Your task to perform on an android device: turn on improve location accuracy Image 0: 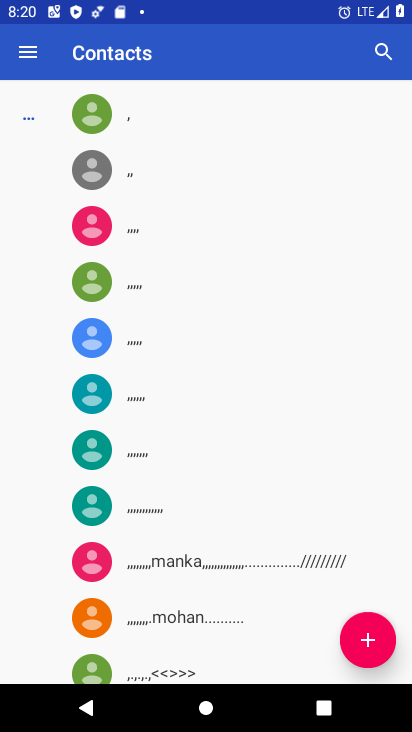
Step 0: press home button
Your task to perform on an android device: turn on improve location accuracy Image 1: 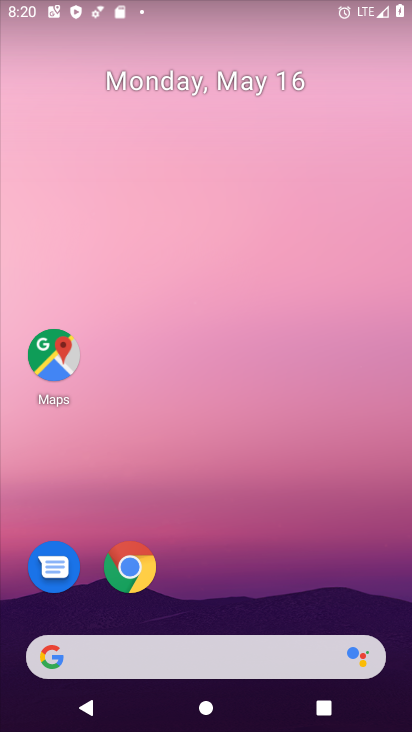
Step 1: drag from (215, 632) to (215, 286)
Your task to perform on an android device: turn on improve location accuracy Image 2: 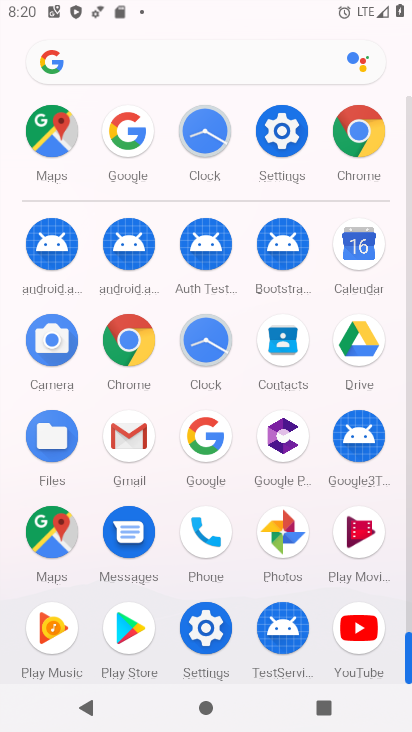
Step 2: click (290, 141)
Your task to perform on an android device: turn on improve location accuracy Image 3: 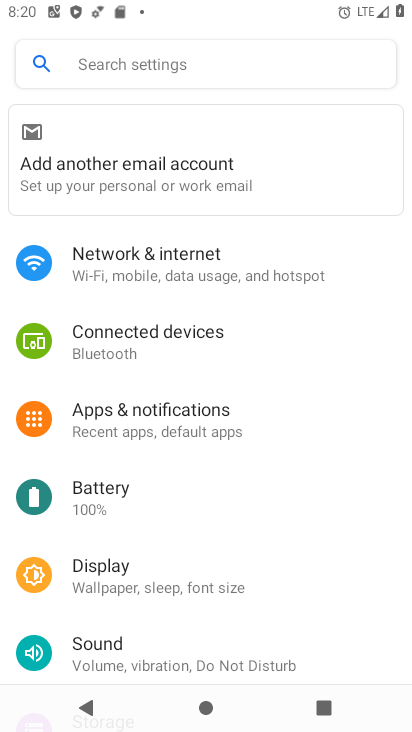
Step 3: drag from (129, 607) to (129, 257)
Your task to perform on an android device: turn on improve location accuracy Image 4: 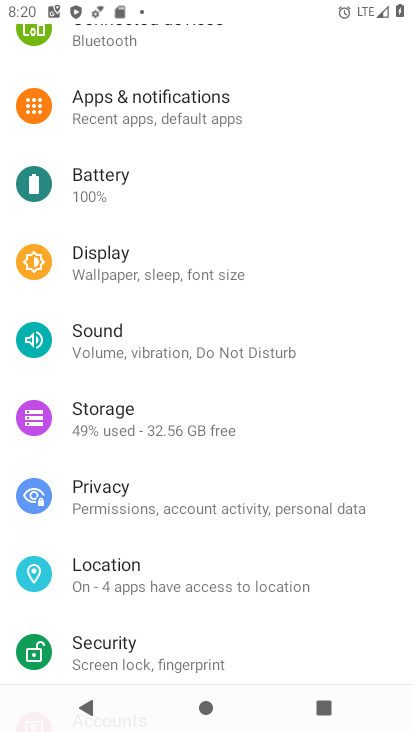
Step 4: click (121, 577)
Your task to perform on an android device: turn on improve location accuracy Image 5: 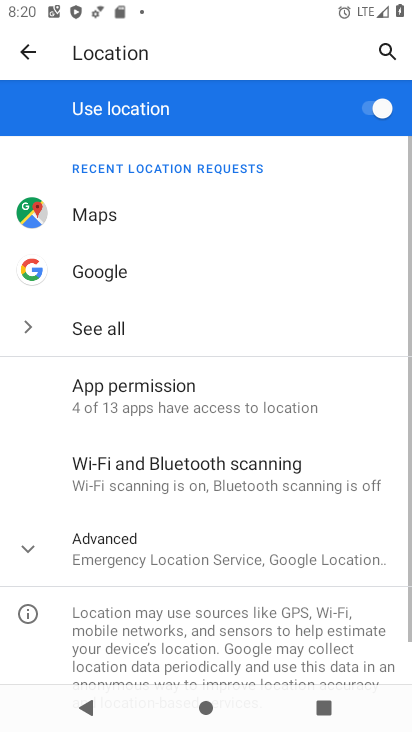
Step 5: click (94, 556)
Your task to perform on an android device: turn on improve location accuracy Image 6: 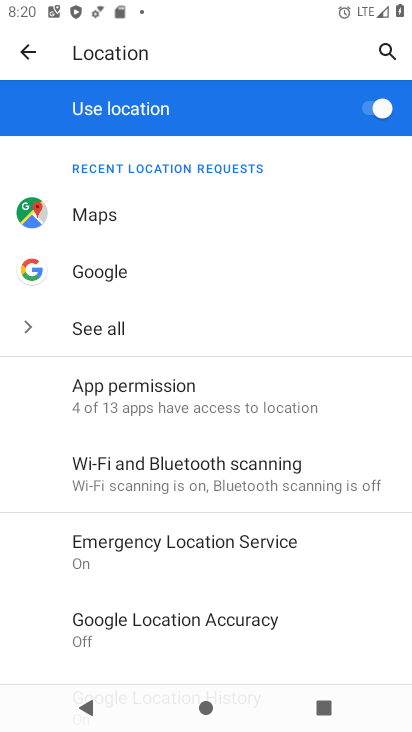
Step 6: drag from (135, 608) to (167, 410)
Your task to perform on an android device: turn on improve location accuracy Image 7: 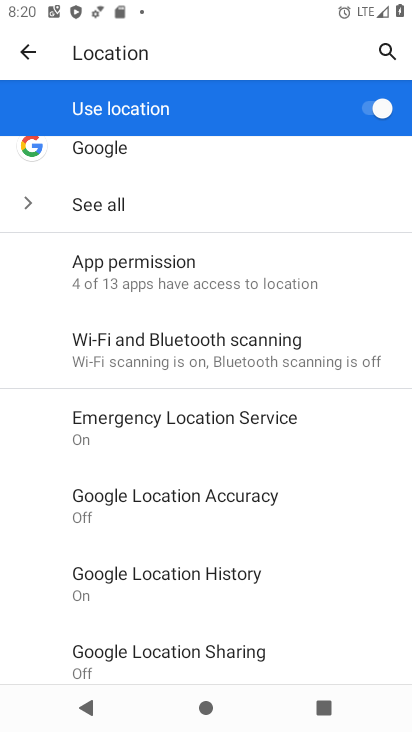
Step 7: click (122, 495)
Your task to perform on an android device: turn on improve location accuracy Image 8: 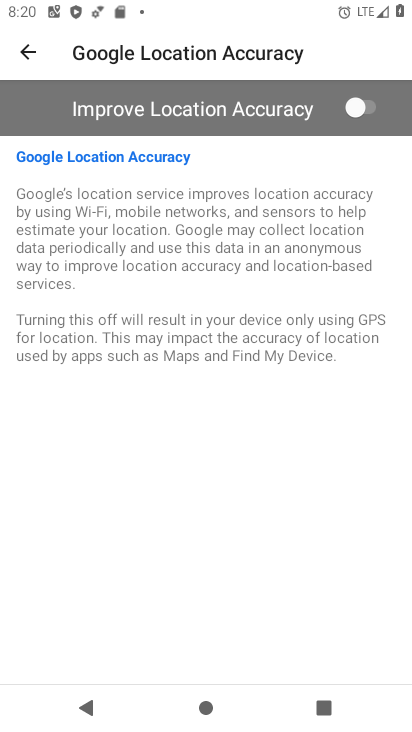
Step 8: click (364, 108)
Your task to perform on an android device: turn on improve location accuracy Image 9: 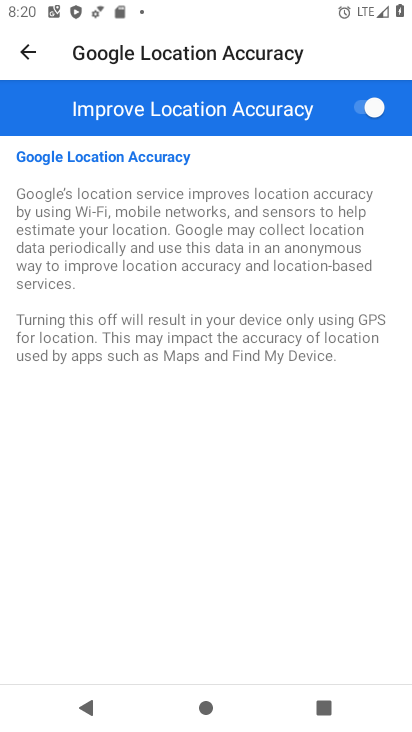
Step 9: task complete